Your task to perform on an android device: Add "macbook pro" to the cart on amazon.com, then select checkout. Image 0: 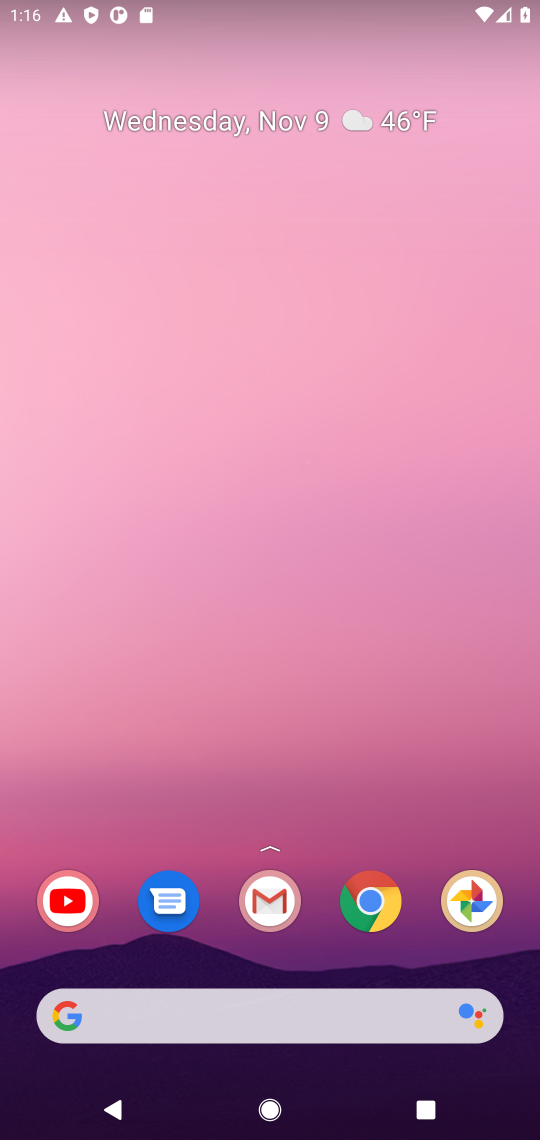
Step 0: click (379, 904)
Your task to perform on an android device: Add "macbook pro" to the cart on amazon.com, then select checkout. Image 1: 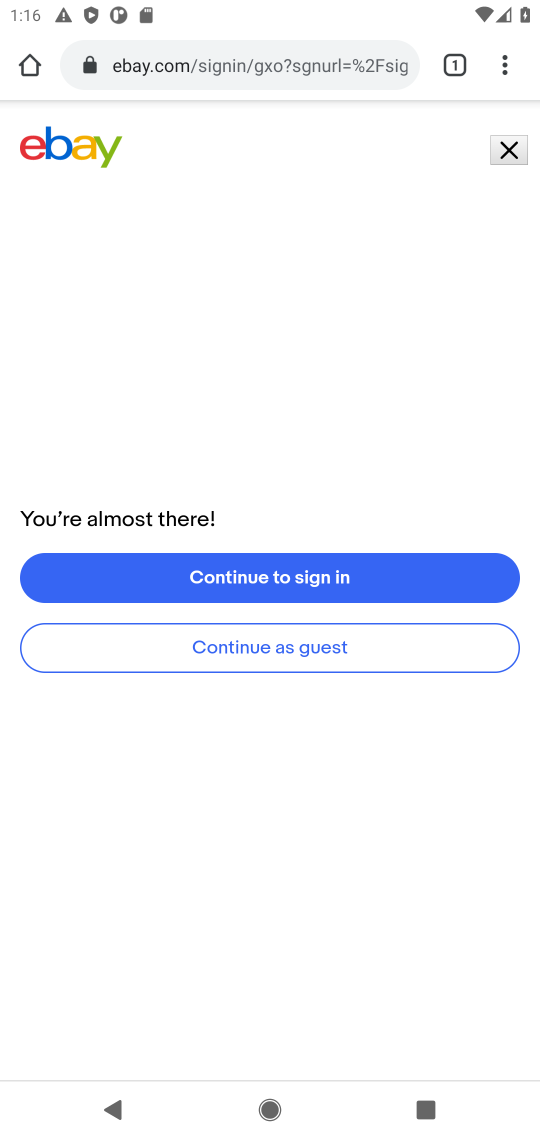
Step 1: click (259, 73)
Your task to perform on an android device: Add "macbook pro" to the cart on amazon.com, then select checkout. Image 2: 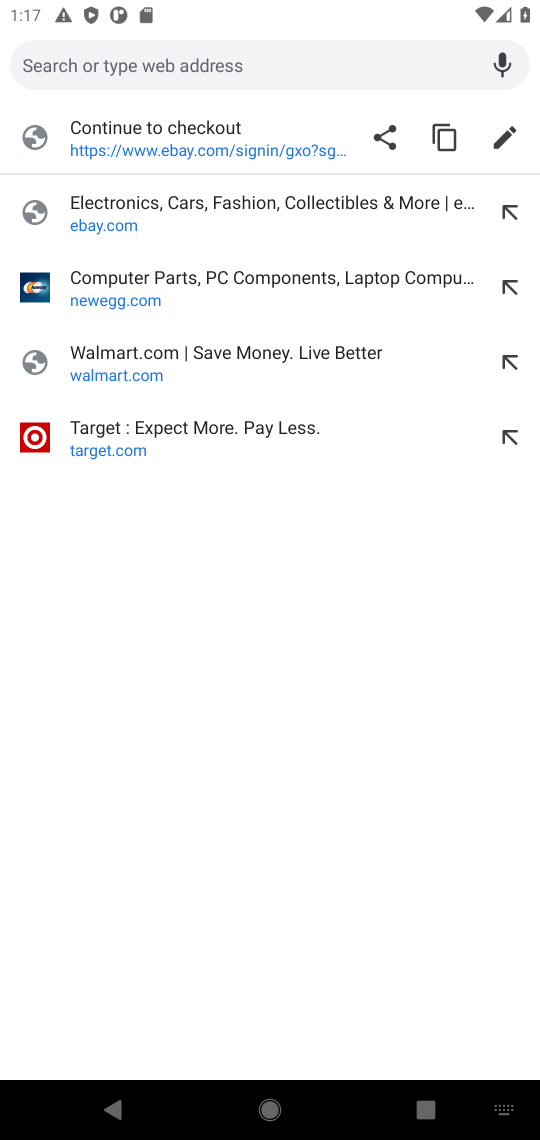
Step 2: type "amazon.com"
Your task to perform on an android device: Add "macbook pro" to the cart on amazon.com, then select checkout. Image 3: 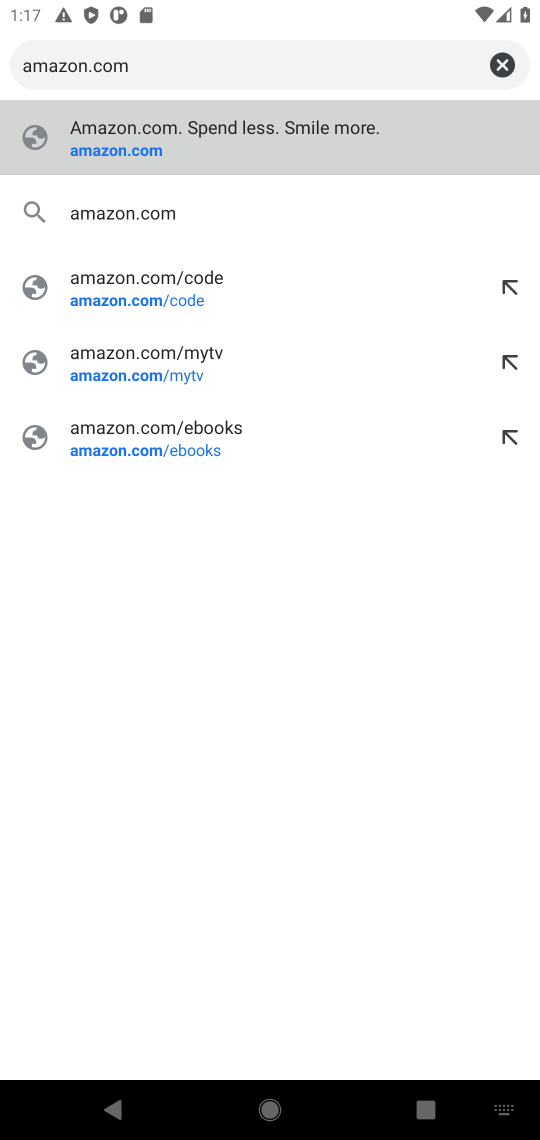
Step 3: press enter
Your task to perform on an android device: Add "macbook pro" to the cart on amazon.com, then select checkout. Image 4: 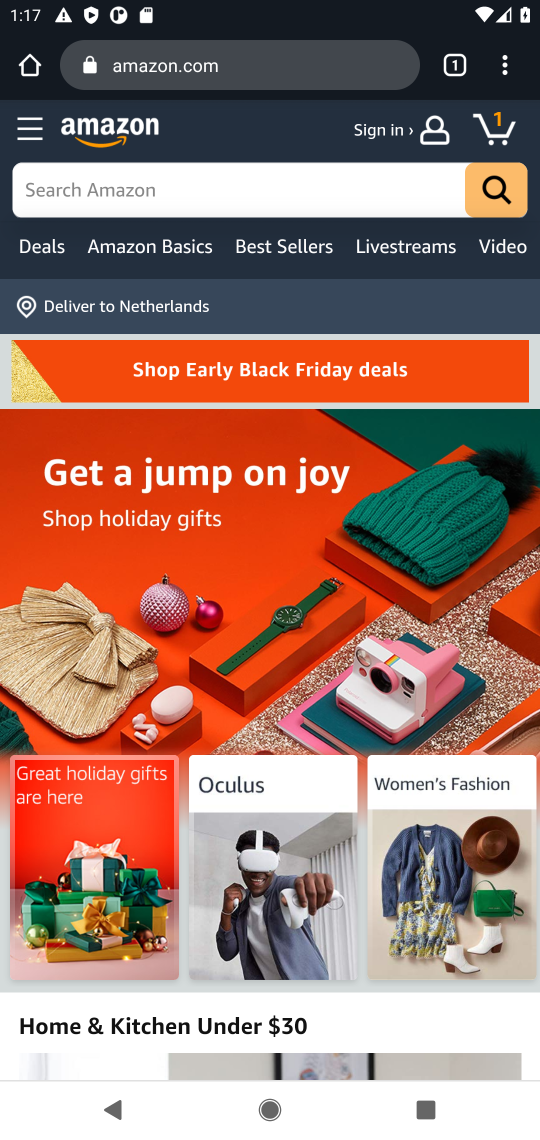
Step 4: click (353, 188)
Your task to perform on an android device: Add "macbook pro" to the cart on amazon.com, then select checkout. Image 5: 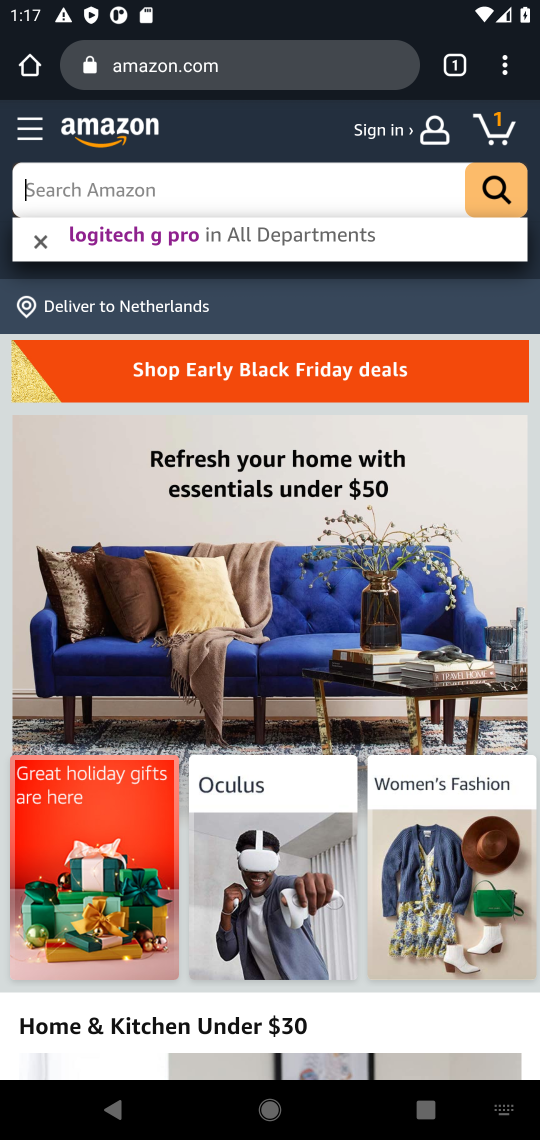
Step 5: press enter
Your task to perform on an android device: Add "macbook pro" to the cart on amazon.com, then select checkout. Image 6: 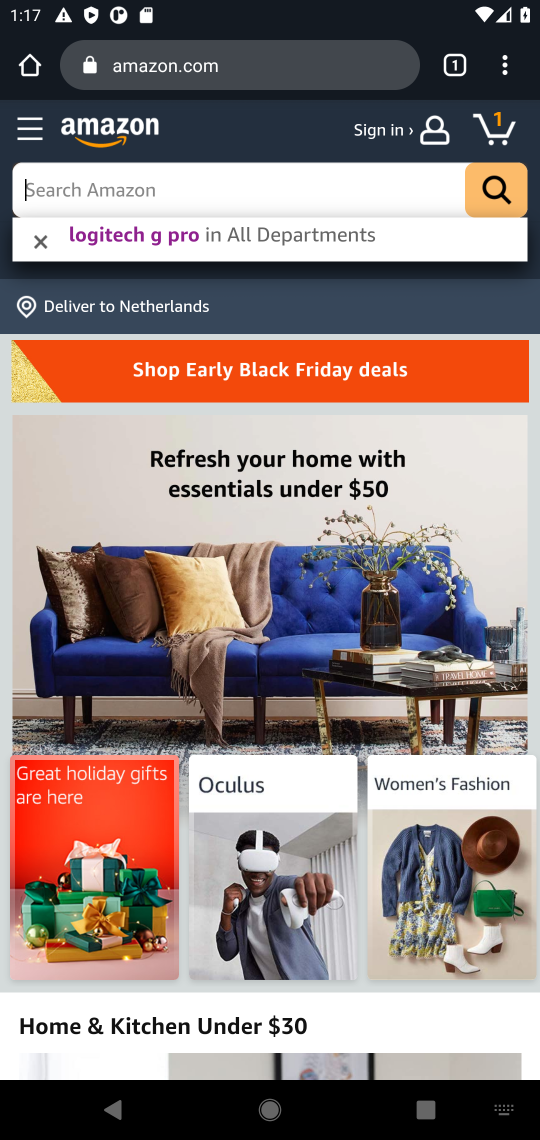
Step 6: type "macbook pro"
Your task to perform on an android device: Add "macbook pro" to the cart on amazon.com, then select checkout. Image 7: 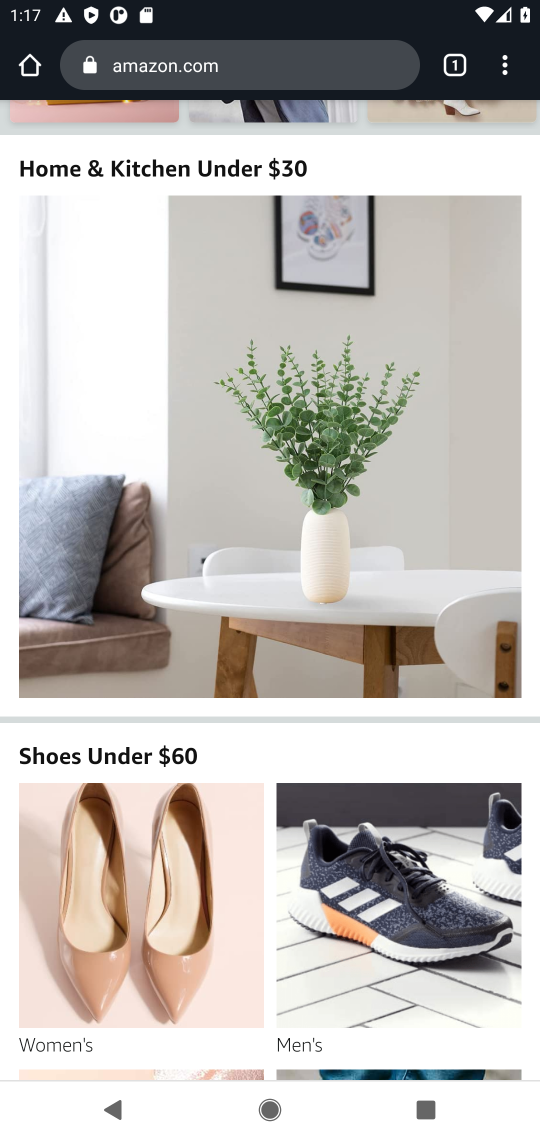
Step 7: drag from (424, 187) to (451, 977)
Your task to perform on an android device: Add "macbook pro" to the cart on amazon.com, then select checkout. Image 8: 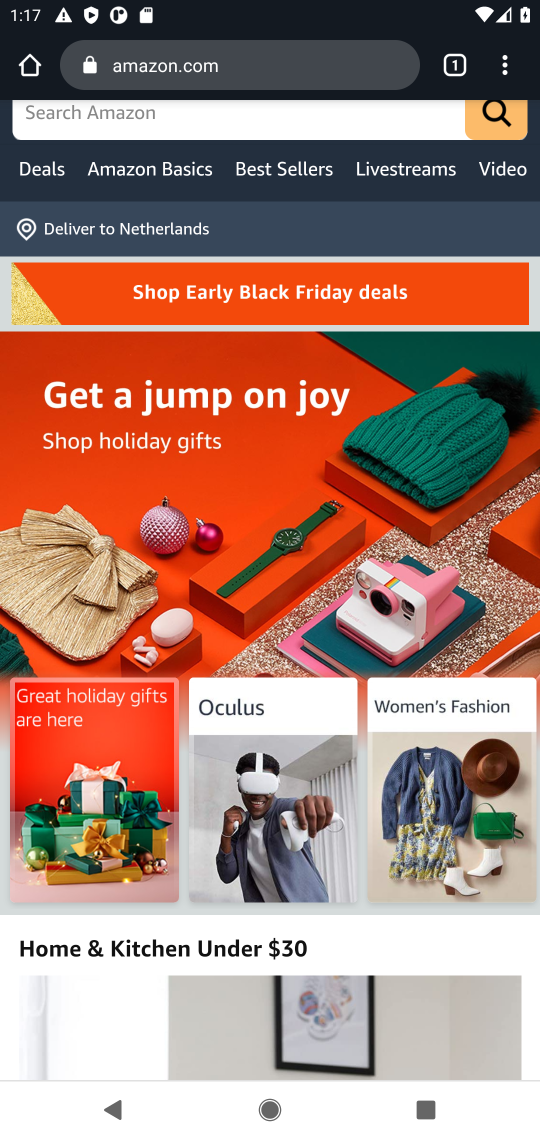
Step 8: drag from (285, 620) to (283, 870)
Your task to perform on an android device: Add "macbook pro" to the cart on amazon.com, then select checkout. Image 9: 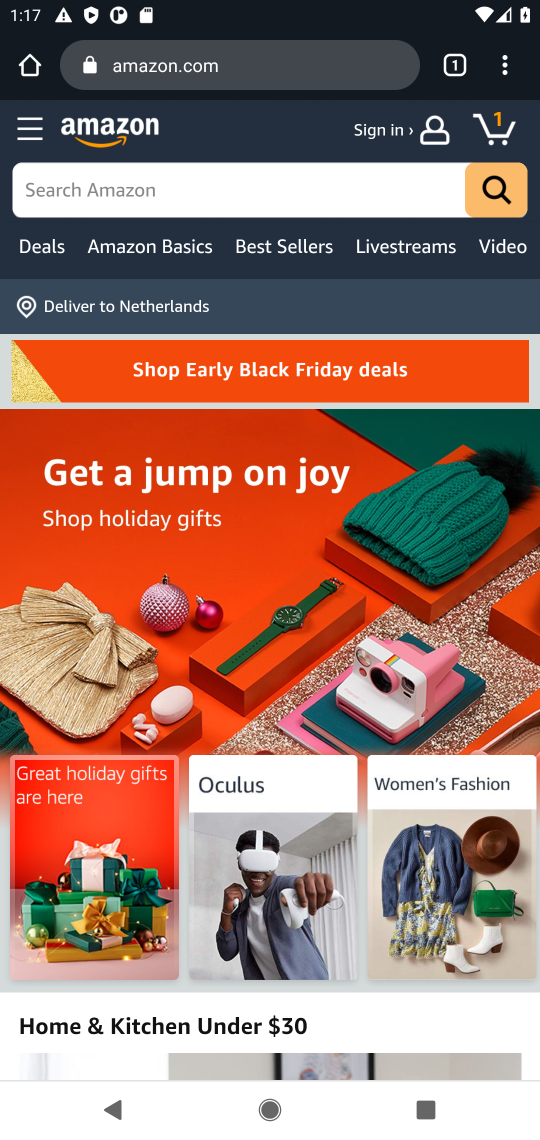
Step 9: click (318, 191)
Your task to perform on an android device: Add "macbook pro" to the cart on amazon.com, then select checkout. Image 10: 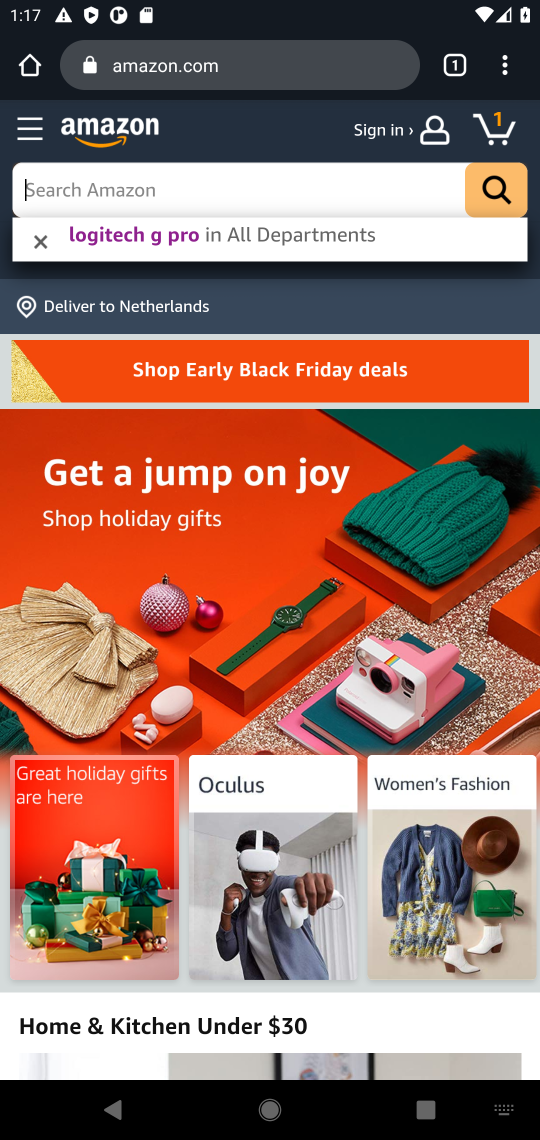
Step 10: type "macbook pro"
Your task to perform on an android device: Add "macbook pro" to the cart on amazon.com, then select checkout. Image 11: 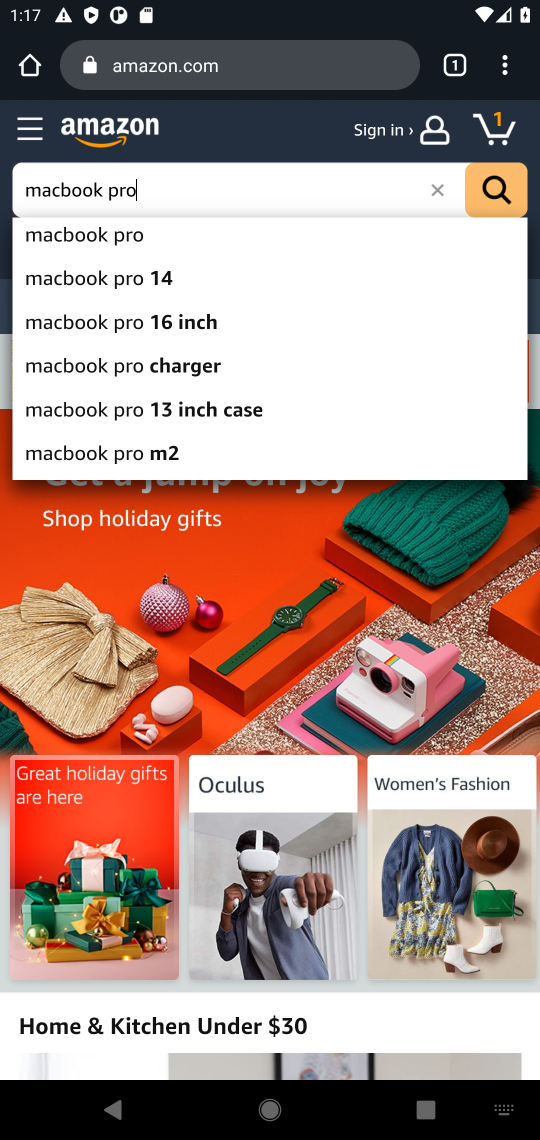
Step 11: press enter
Your task to perform on an android device: Add "macbook pro" to the cart on amazon.com, then select checkout. Image 12: 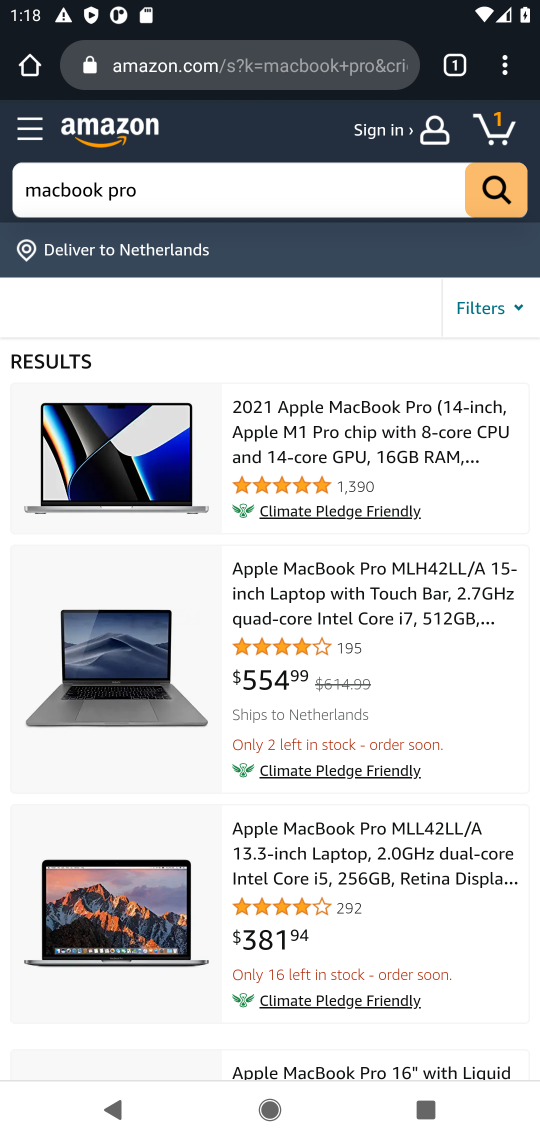
Step 12: click (88, 637)
Your task to perform on an android device: Add "macbook pro" to the cart on amazon.com, then select checkout. Image 13: 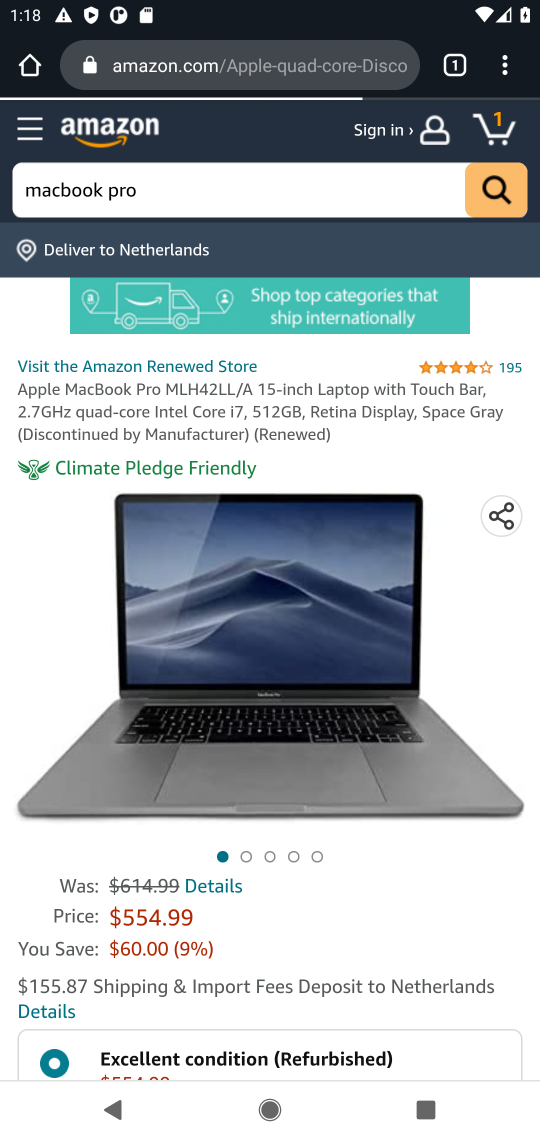
Step 13: drag from (440, 906) to (493, 454)
Your task to perform on an android device: Add "macbook pro" to the cart on amazon.com, then select checkout. Image 14: 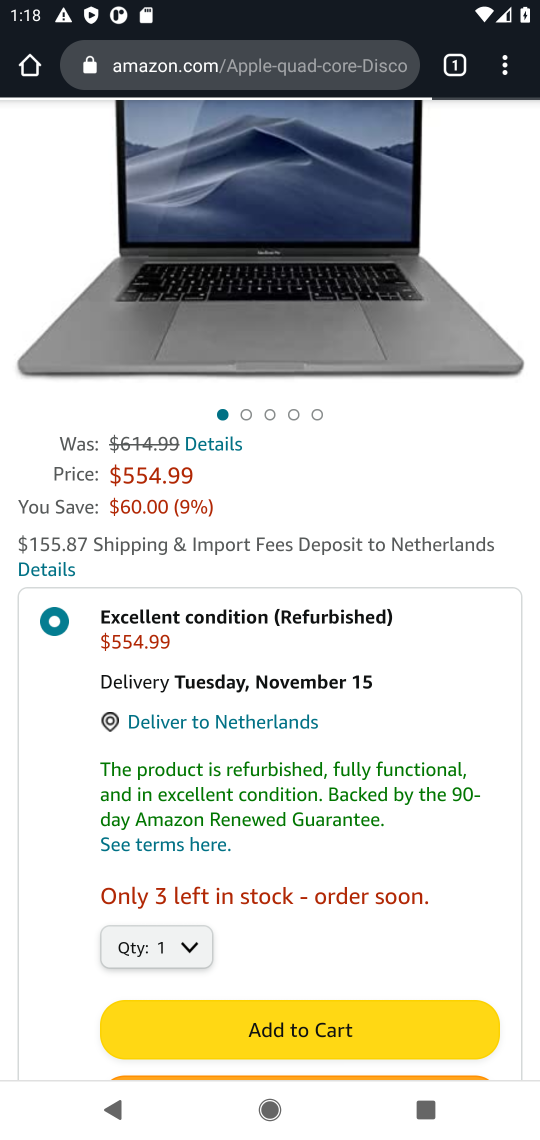
Step 14: drag from (456, 809) to (454, 642)
Your task to perform on an android device: Add "macbook pro" to the cart on amazon.com, then select checkout. Image 15: 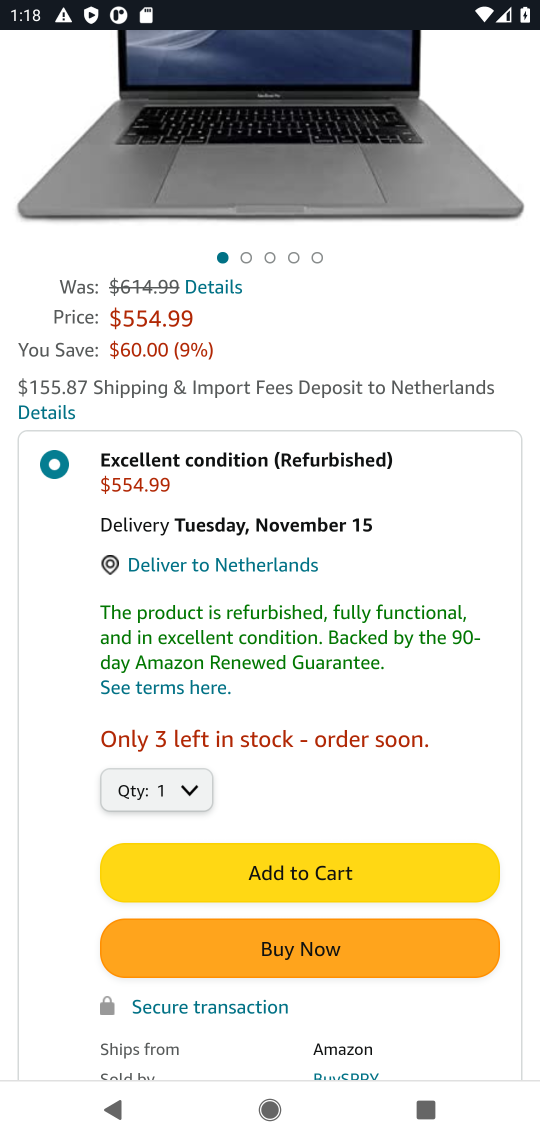
Step 15: click (372, 879)
Your task to perform on an android device: Add "macbook pro" to the cart on amazon.com, then select checkout. Image 16: 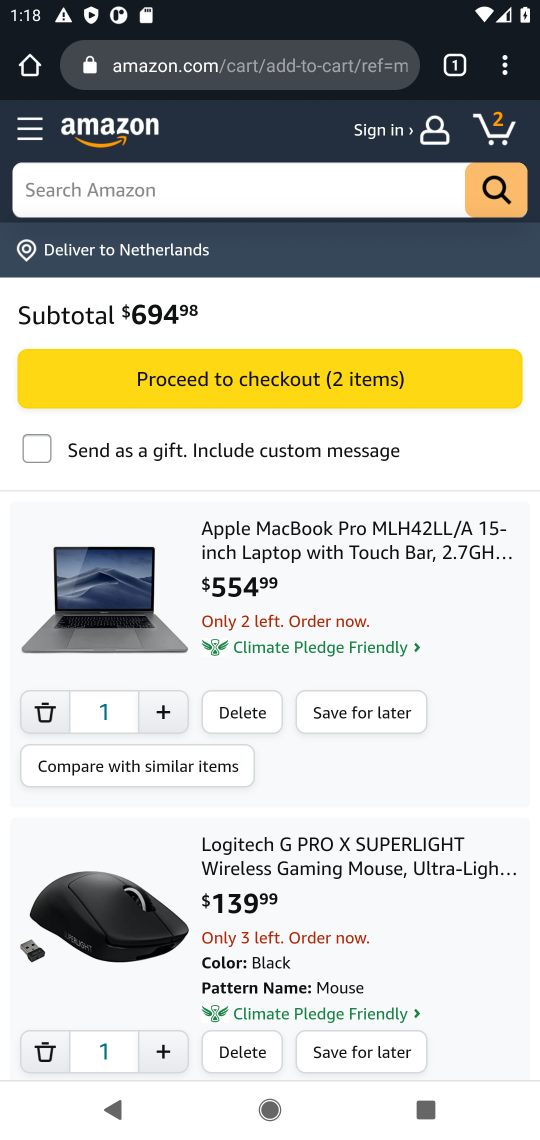
Step 16: click (269, 371)
Your task to perform on an android device: Add "macbook pro" to the cart on amazon.com, then select checkout. Image 17: 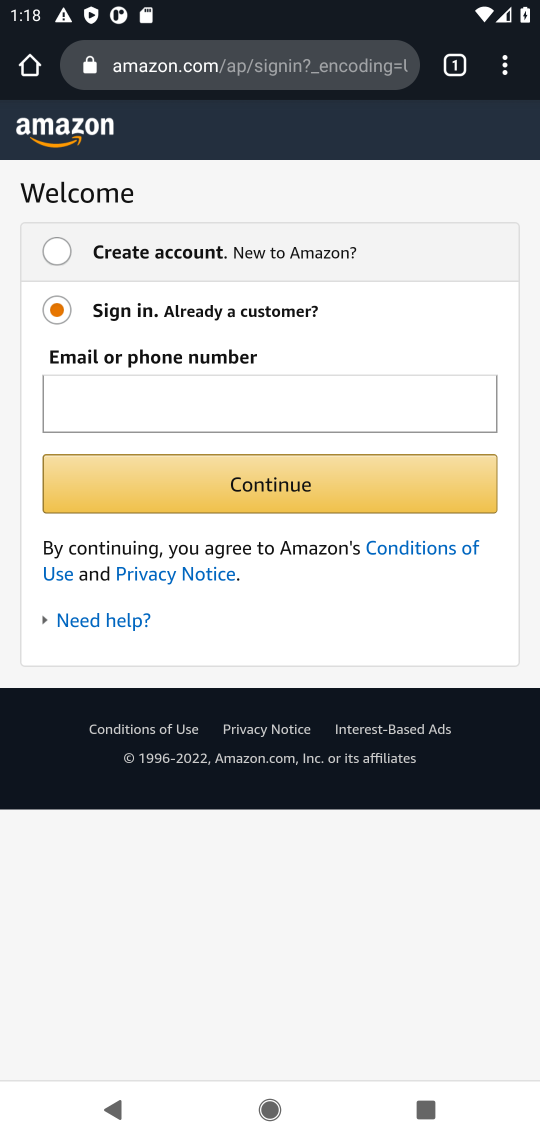
Step 17: task complete